Your task to perform on an android device: turn on translation in the chrome app Image 0: 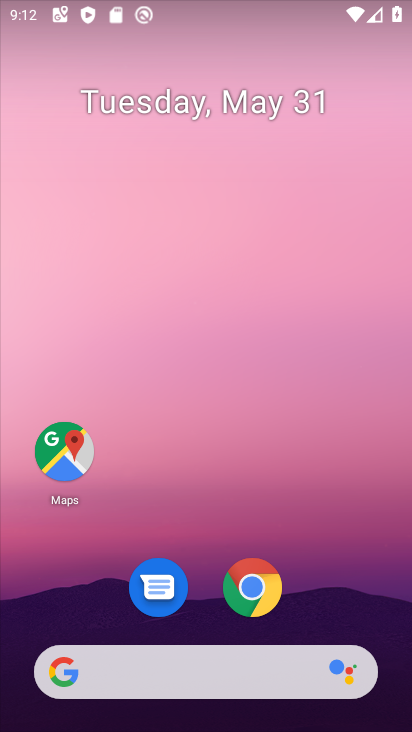
Step 0: click (257, 582)
Your task to perform on an android device: turn on translation in the chrome app Image 1: 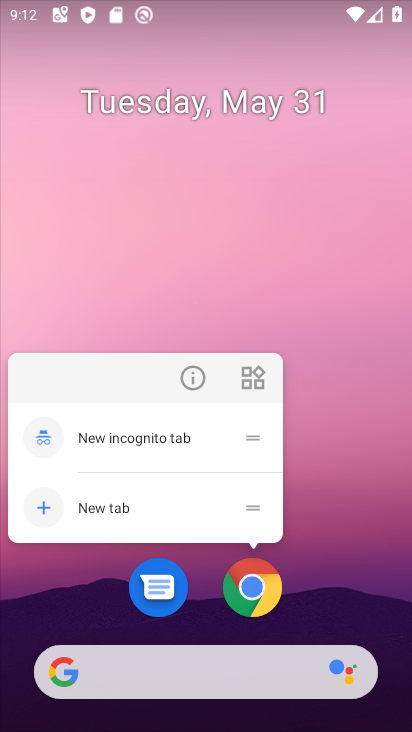
Step 1: click (257, 582)
Your task to perform on an android device: turn on translation in the chrome app Image 2: 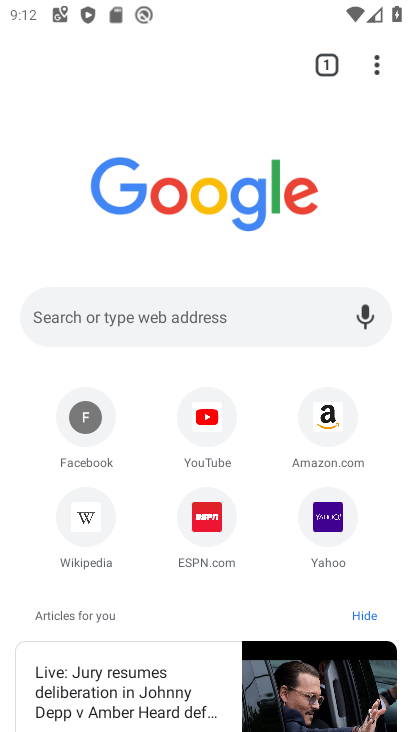
Step 2: drag from (381, 70) to (141, 538)
Your task to perform on an android device: turn on translation in the chrome app Image 3: 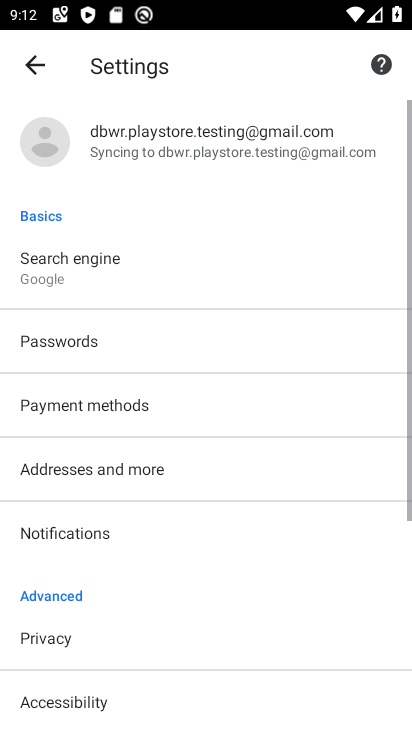
Step 3: drag from (224, 595) to (246, 120)
Your task to perform on an android device: turn on translation in the chrome app Image 4: 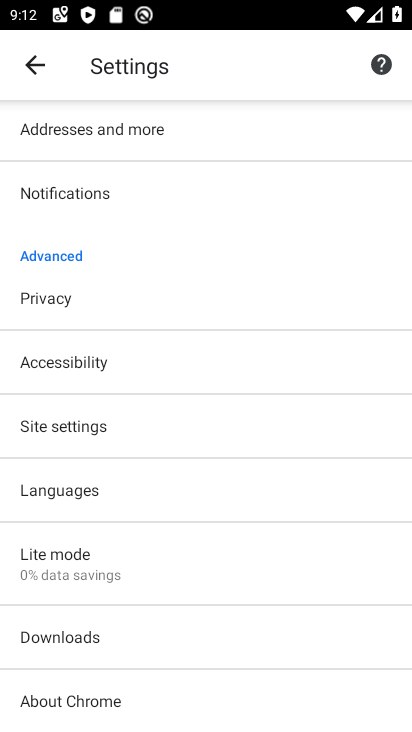
Step 4: click (59, 492)
Your task to perform on an android device: turn on translation in the chrome app Image 5: 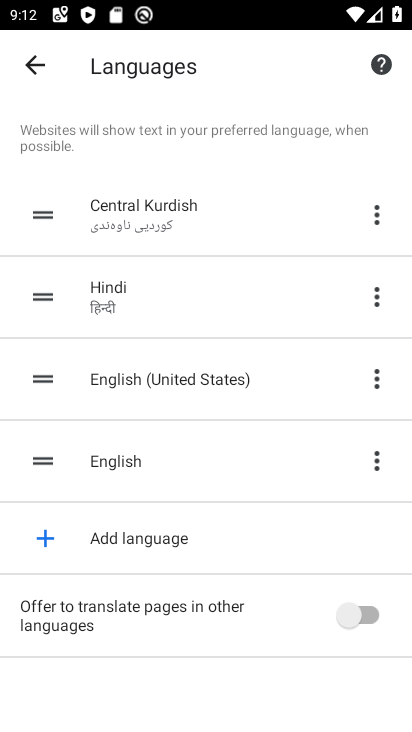
Step 5: click (370, 612)
Your task to perform on an android device: turn on translation in the chrome app Image 6: 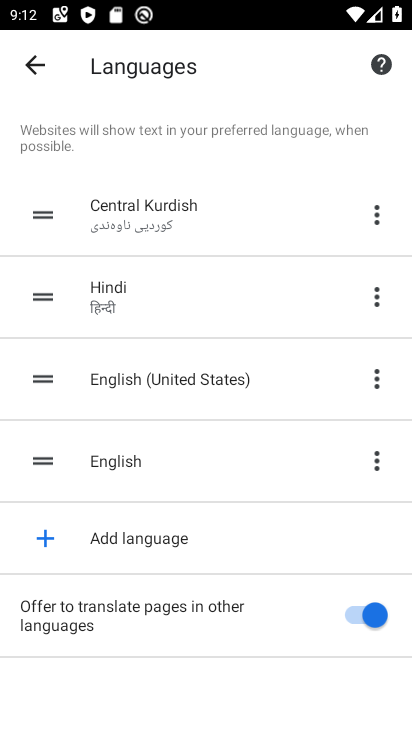
Step 6: task complete